Your task to perform on an android device: Open Reddit.com Image 0: 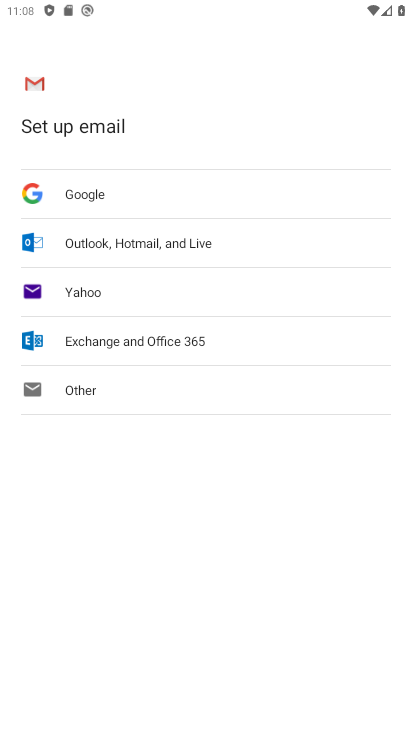
Step 0: drag from (233, 663) to (243, 544)
Your task to perform on an android device: Open Reddit.com Image 1: 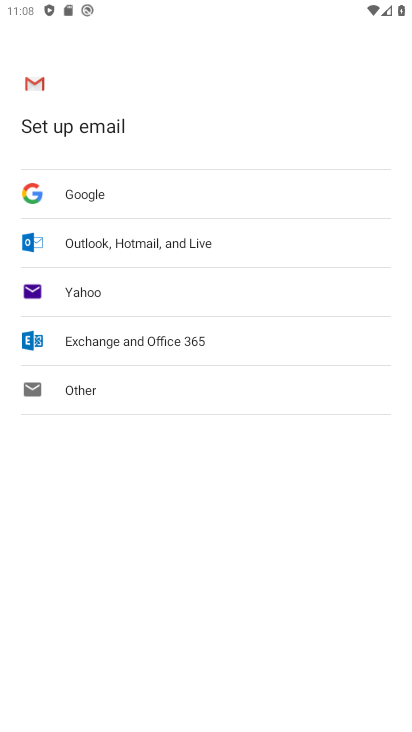
Step 1: press home button
Your task to perform on an android device: Open Reddit.com Image 2: 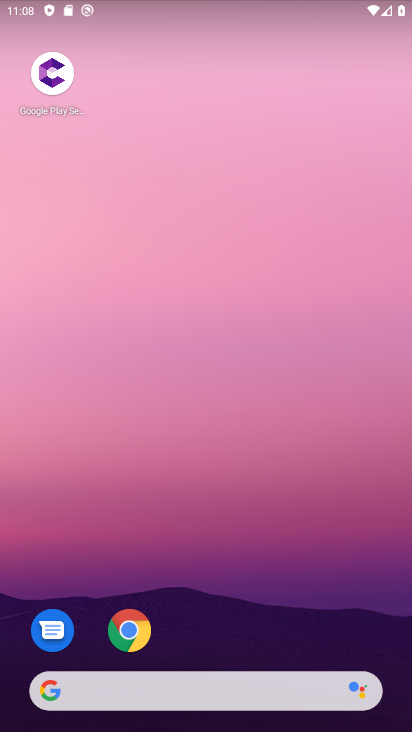
Step 2: click (142, 634)
Your task to perform on an android device: Open Reddit.com Image 3: 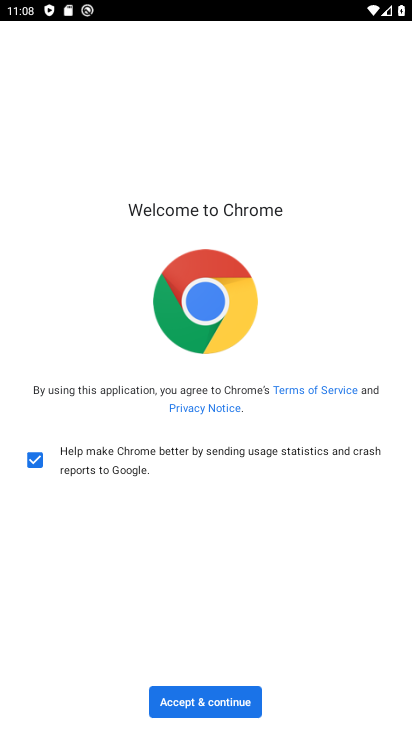
Step 3: click (239, 681)
Your task to perform on an android device: Open Reddit.com Image 4: 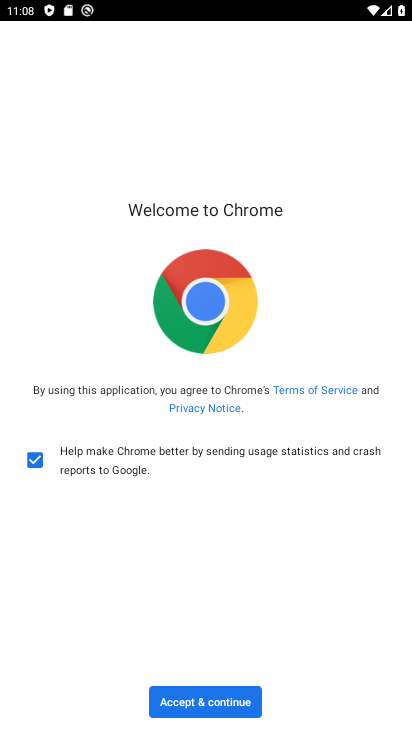
Step 4: click (199, 717)
Your task to perform on an android device: Open Reddit.com Image 5: 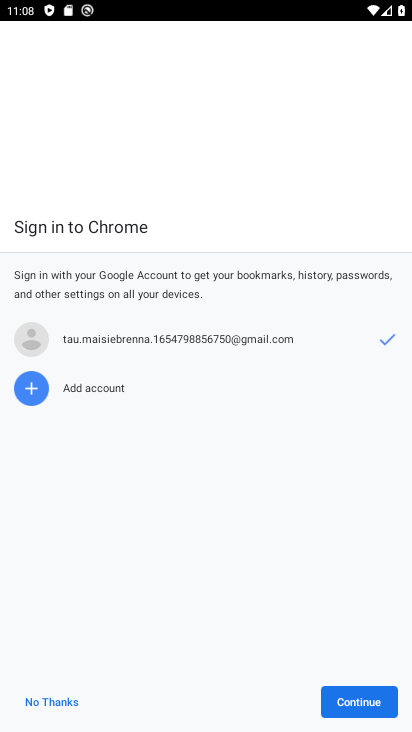
Step 5: click (365, 708)
Your task to perform on an android device: Open Reddit.com Image 6: 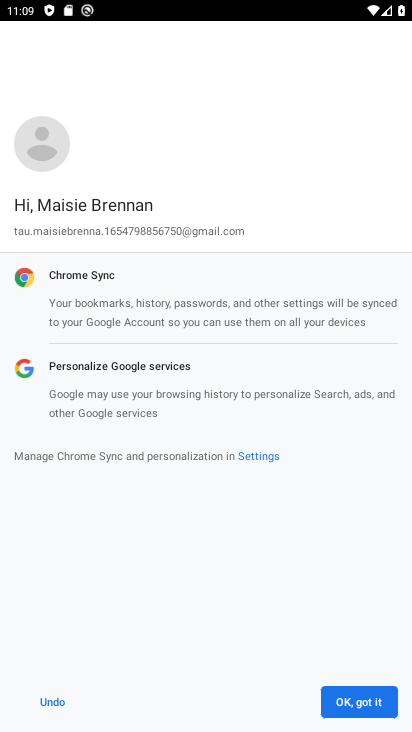
Step 6: click (340, 707)
Your task to perform on an android device: Open Reddit.com Image 7: 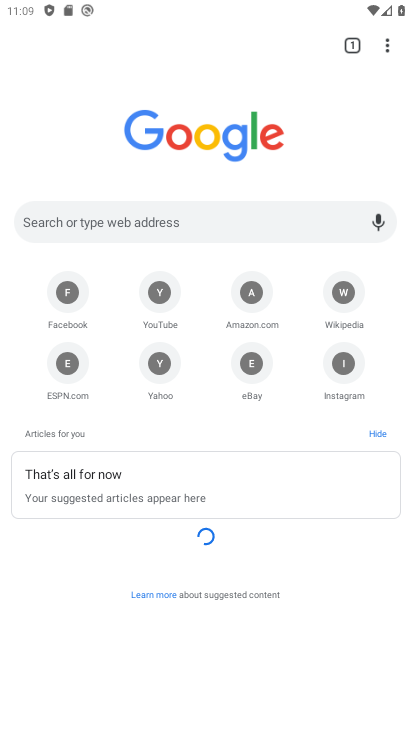
Step 7: click (144, 51)
Your task to perform on an android device: Open Reddit.com Image 8: 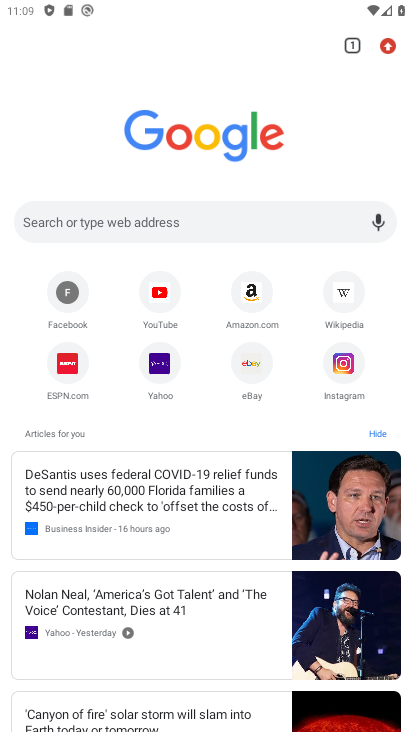
Step 8: click (67, 215)
Your task to perform on an android device: Open Reddit.com Image 9: 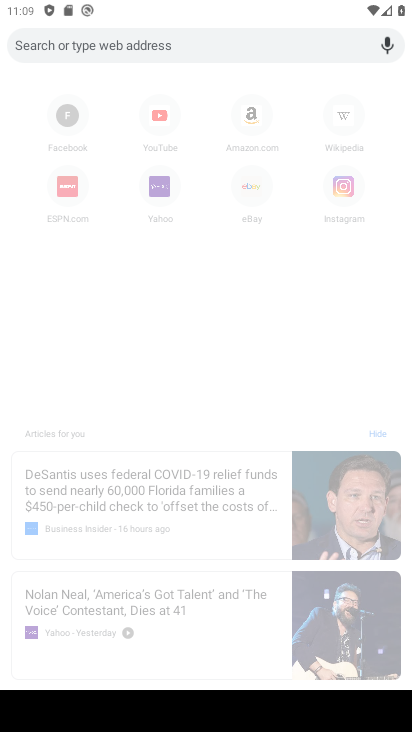
Step 9: type "reddit"
Your task to perform on an android device: Open Reddit.com Image 10: 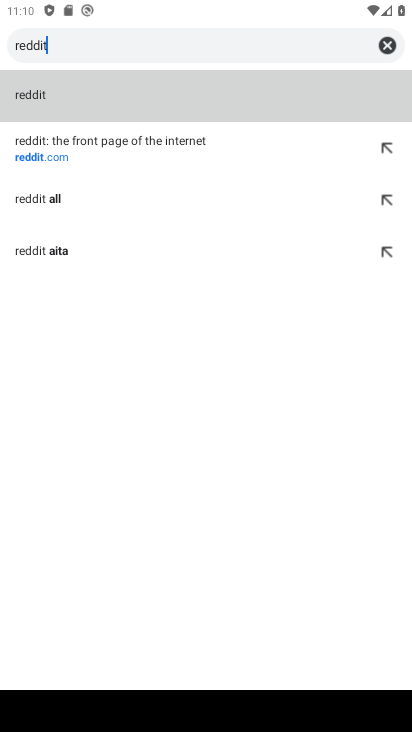
Step 10: click (184, 142)
Your task to perform on an android device: Open Reddit.com Image 11: 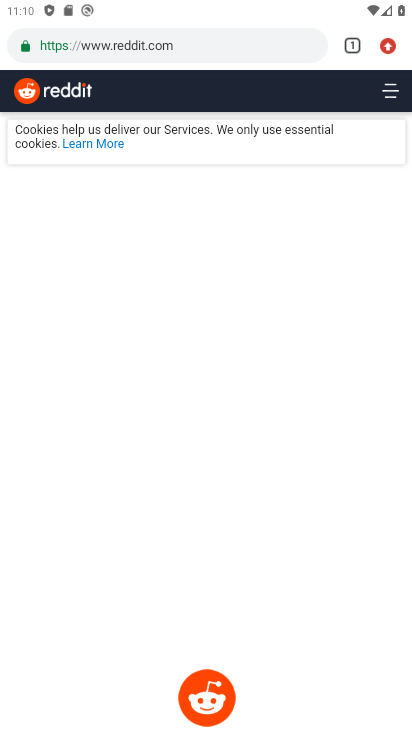
Step 11: task complete